Your task to perform on an android device: Open Youtube and go to "Your channel" Image 0: 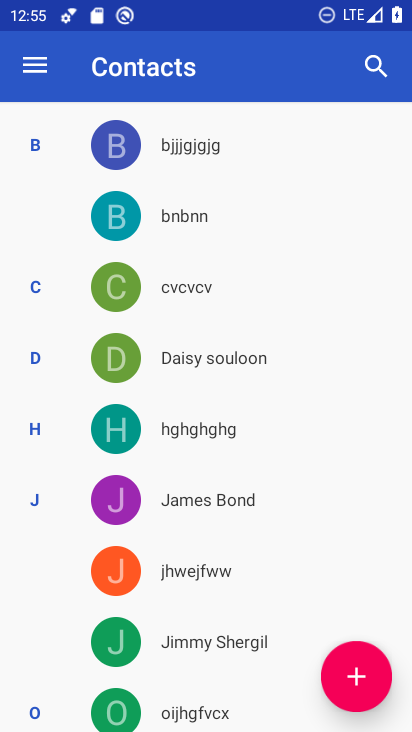
Step 0: press home button
Your task to perform on an android device: Open Youtube and go to "Your channel" Image 1: 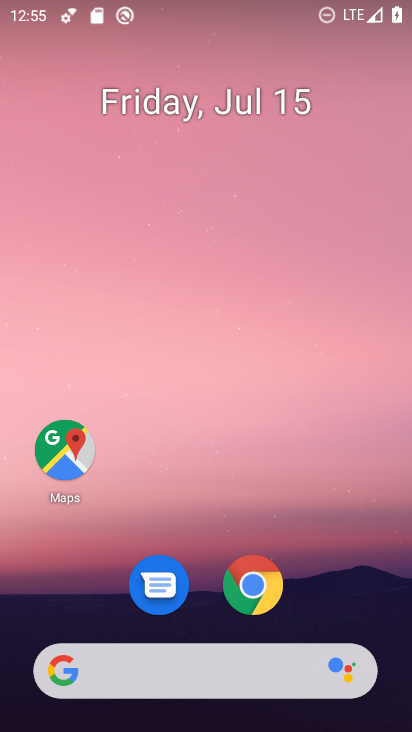
Step 1: drag from (355, 536) to (312, 58)
Your task to perform on an android device: Open Youtube and go to "Your channel" Image 2: 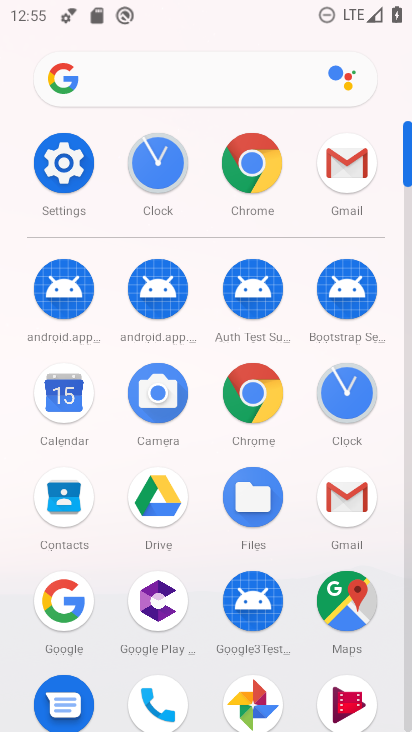
Step 2: drag from (302, 440) to (313, 25)
Your task to perform on an android device: Open Youtube and go to "Your channel" Image 3: 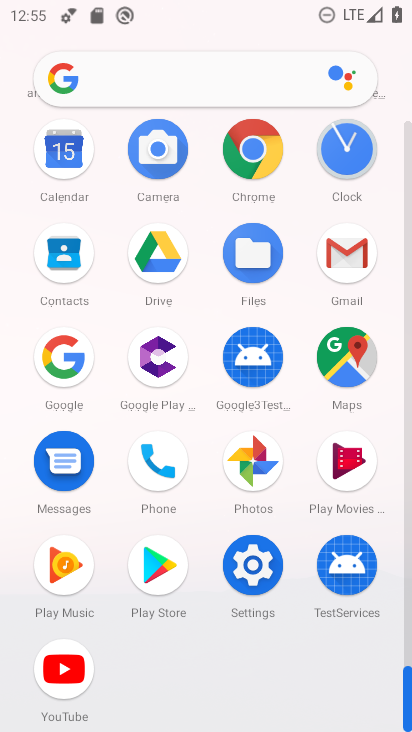
Step 3: click (79, 671)
Your task to perform on an android device: Open Youtube and go to "Your channel" Image 4: 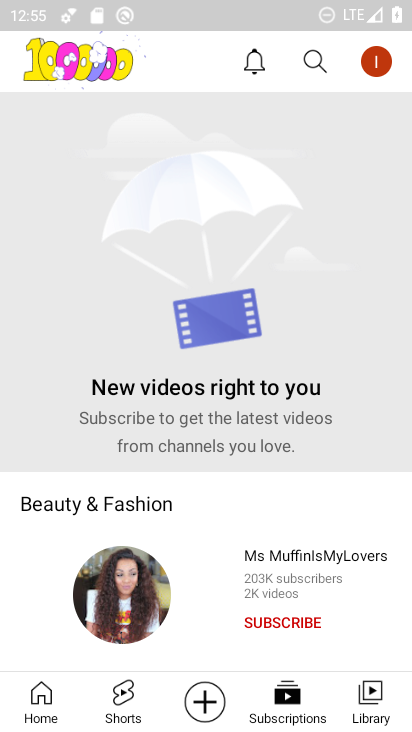
Step 4: click (373, 58)
Your task to perform on an android device: Open Youtube and go to "Your channel" Image 5: 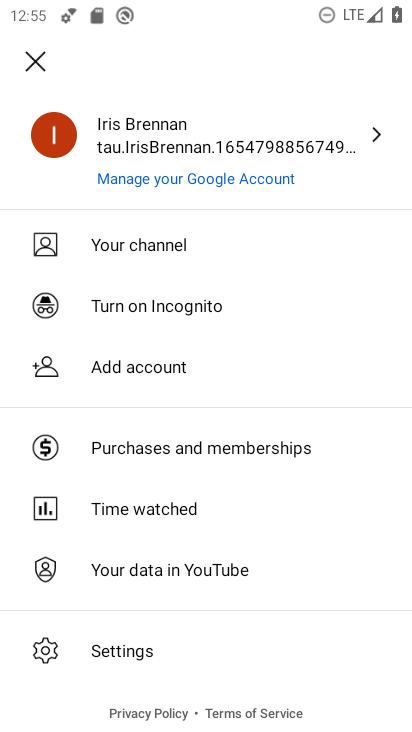
Step 5: click (181, 243)
Your task to perform on an android device: Open Youtube and go to "Your channel" Image 6: 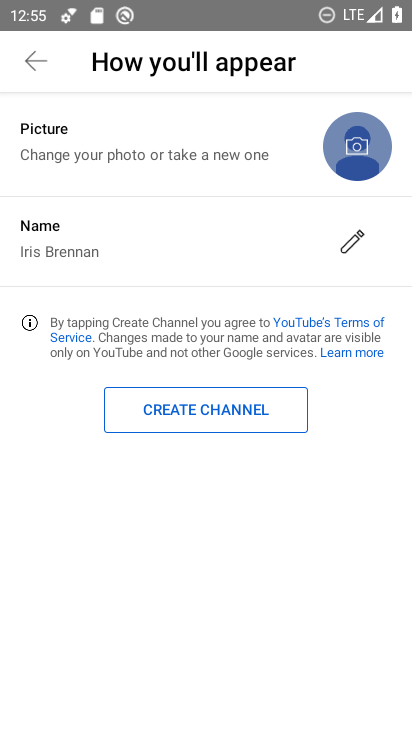
Step 6: task complete